Your task to perform on an android device: Open Amazon Image 0: 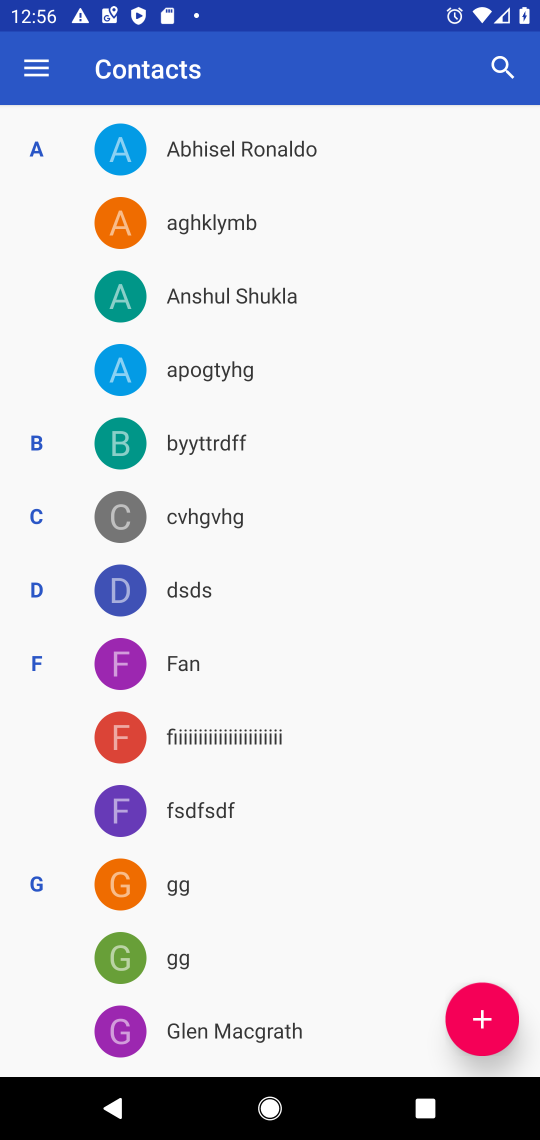
Step 0: press home button
Your task to perform on an android device: Open Amazon Image 1: 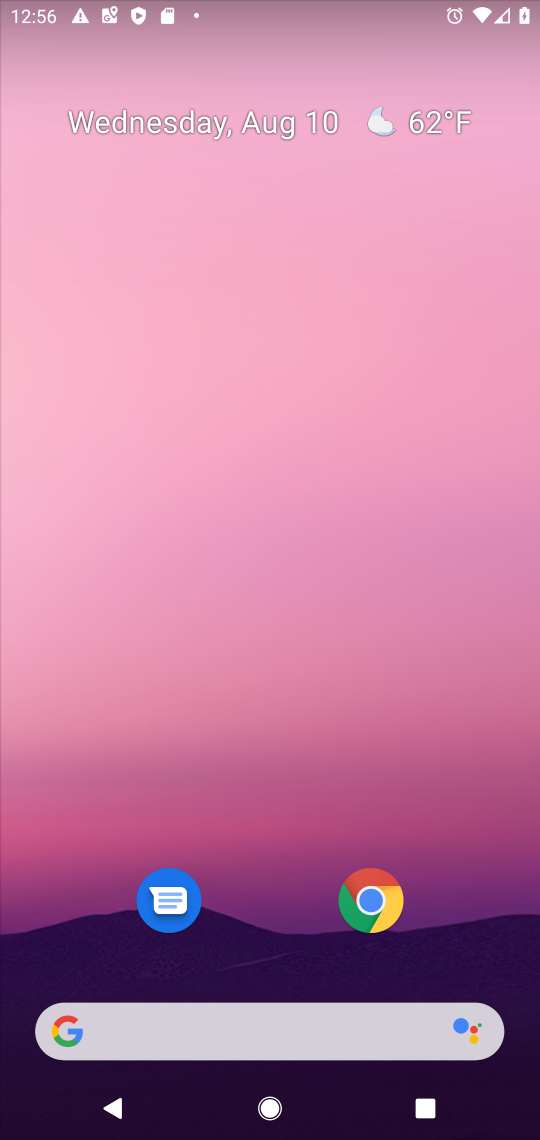
Step 1: drag from (278, 891) to (335, 20)
Your task to perform on an android device: Open Amazon Image 2: 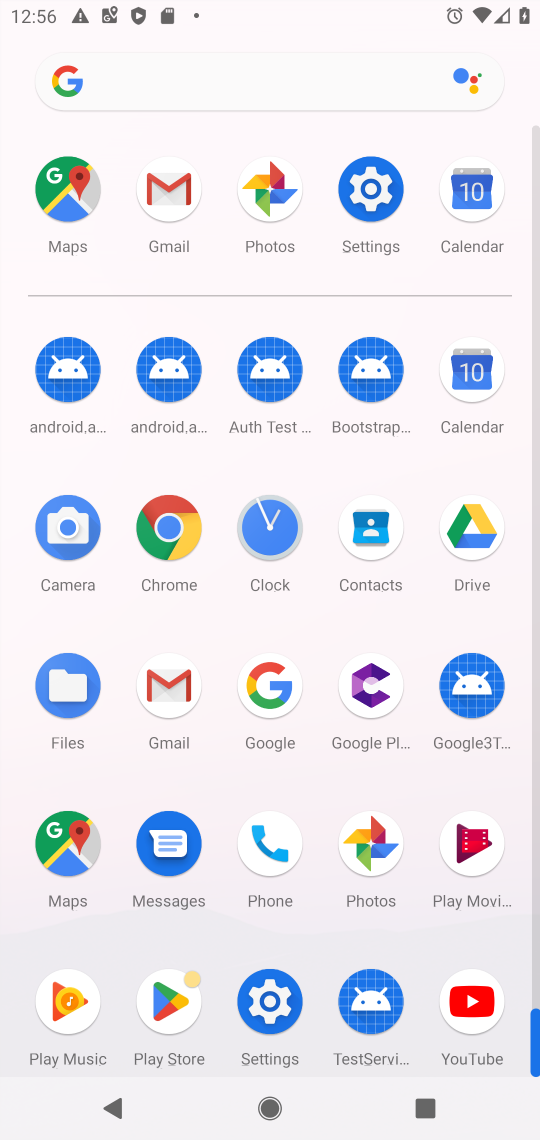
Step 2: click (171, 527)
Your task to perform on an android device: Open Amazon Image 3: 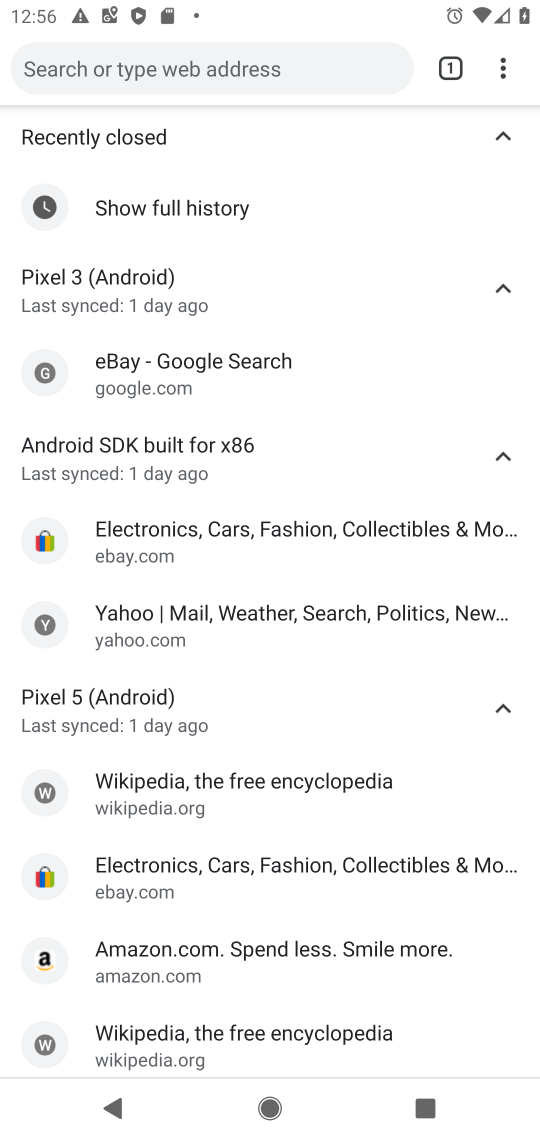
Step 3: task complete